Your task to perform on an android device: Open calendar and show me the fourth week of next month Image 0: 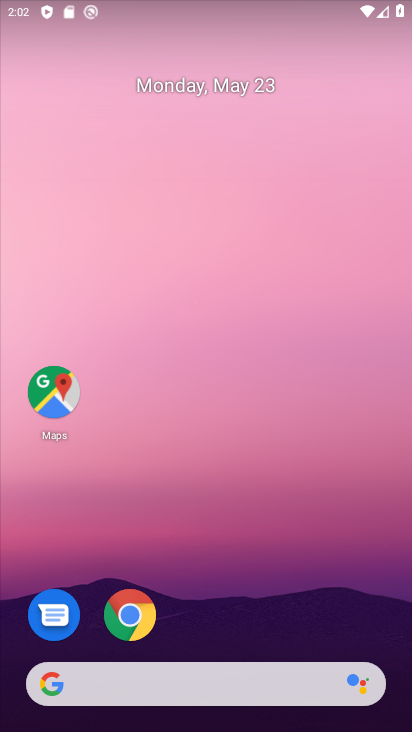
Step 0: drag from (212, 297) to (245, 0)
Your task to perform on an android device: Open calendar and show me the fourth week of next month Image 1: 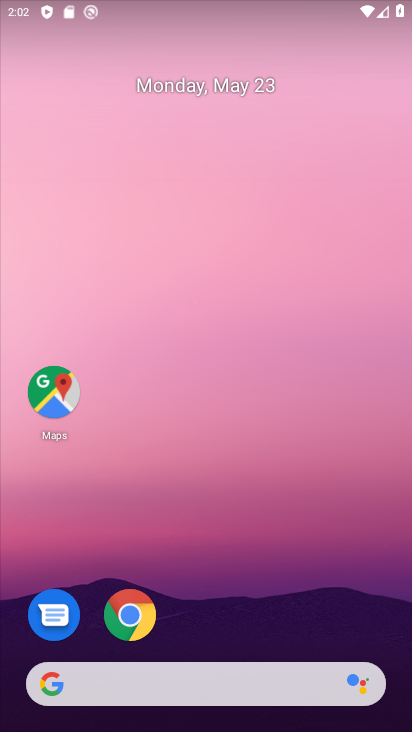
Step 1: drag from (212, 547) to (265, 1)
Your task to perform on an android device: Open calendar and show me the fourth week of next month Image 2: 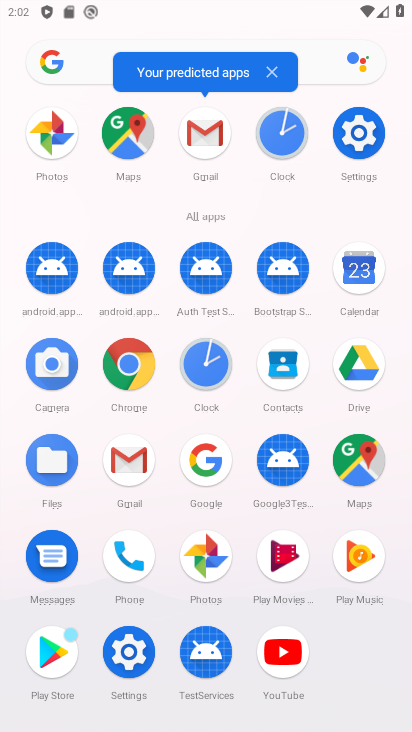
Step 2: click (357, 285)
Your task to perform on an android device: Open calendar and show me the fourth week of next month Image 3: 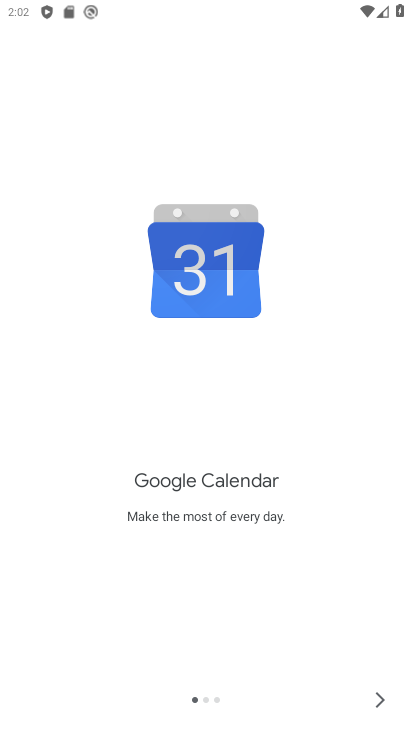
Step 3: click (382, 690)
Your task to perform on an android device: Open calendar and show me the fourth week of next month Image 4: 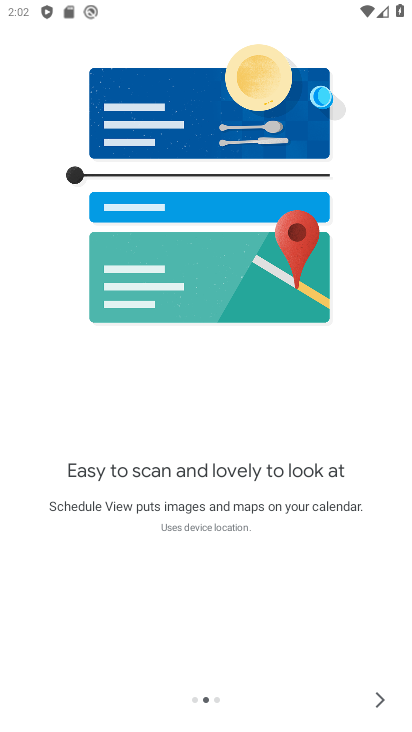
Step 4: click (377, 698)
Your task to perform on an android device: Open calendar and show me the fourth week of next month Image 5: 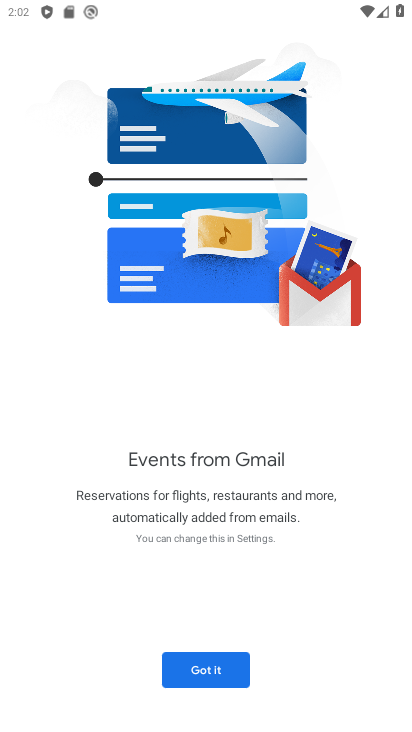
Step 5: click (203, 667)
Your task to perform on an android device: Open calendar and show me the fourth week of next month Image 6: 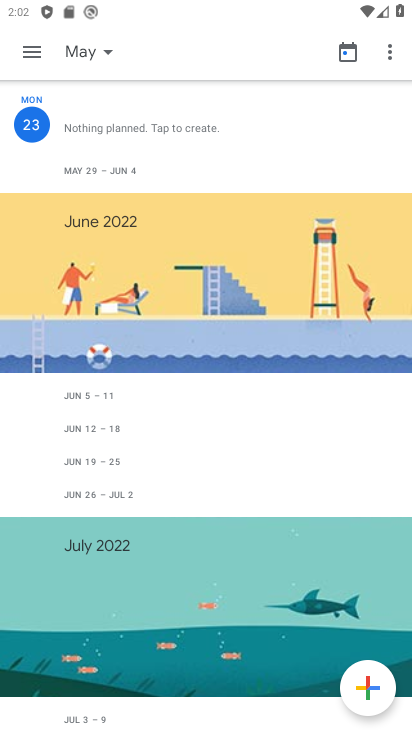
Step 6: click (35, 41)
Your task to perform on an android device: Open calendar and show me the fourth week of next month Image 7: 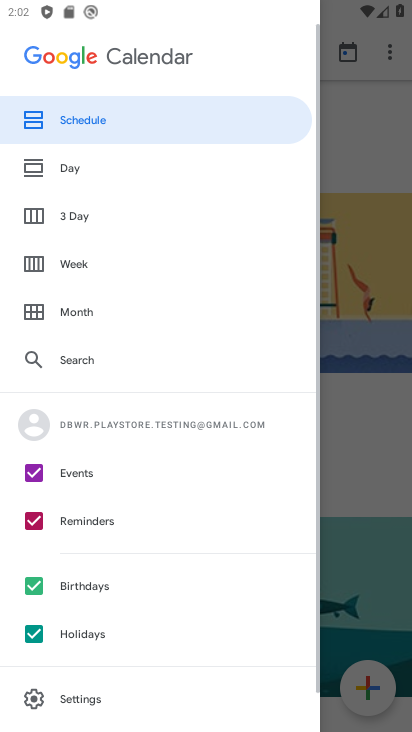
Step 7: click (79, 267)
Your task to perform on an android device: Open calendar and show me the fourth week of next month Image 8: 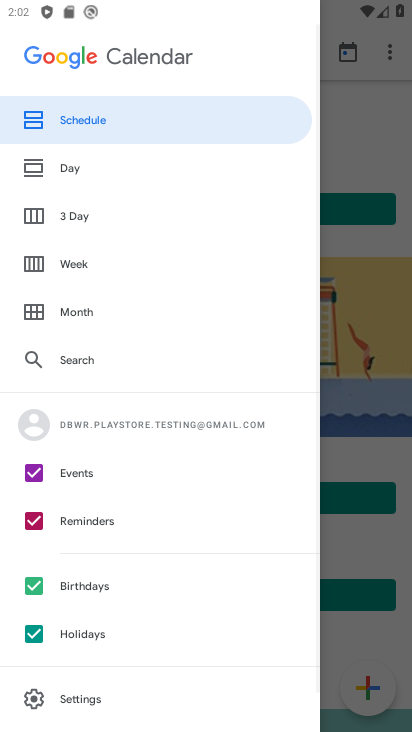
Step 8: click (78, 264)
Your task to perform on an android device: Open calendar and show me the fourth week of next month Image 9: 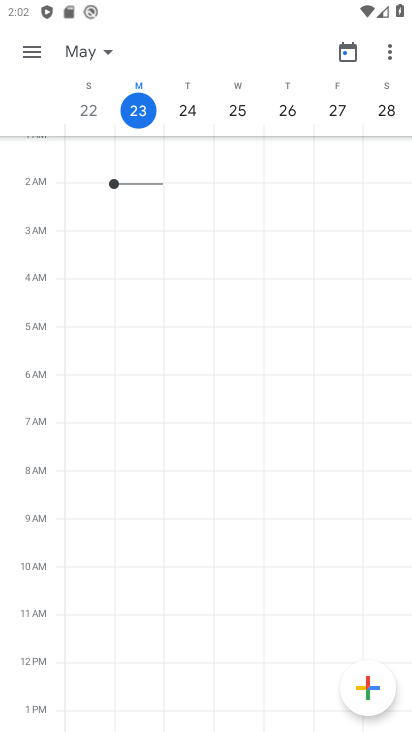
Step 9: click (77, 52)
Your task to perform on an android device: Open calendar and show me the fourth week of next month Image 10: 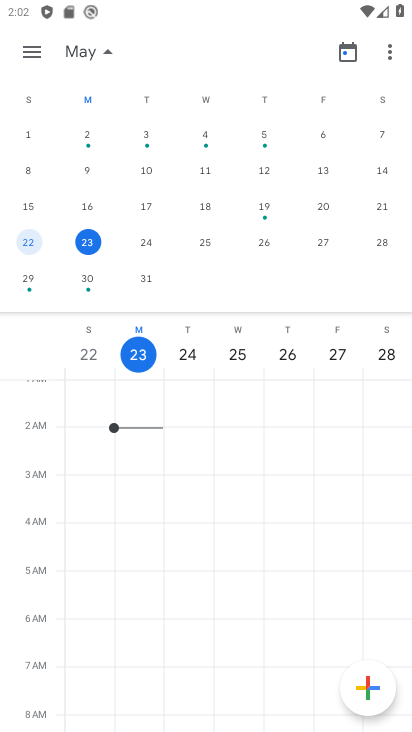
Step 10: drag from (374, 189) to (0, 230)
Your task to perform on an android device: Open calendar and show me the fourth week of next month Image 11: 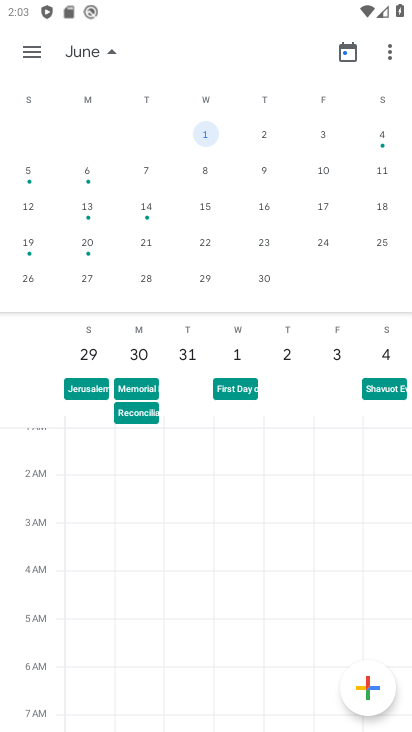
Step 11: click (31, 54)
Your task to perform on an android device: Open calendar and show me the fourth week of next month Image 12: 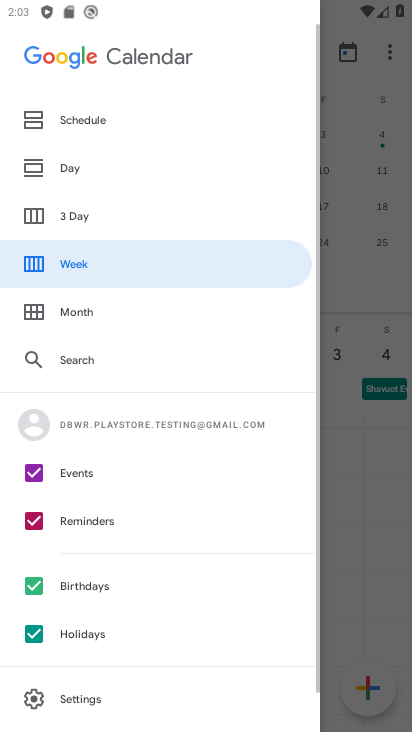
Step 12: click (143, 284)
Your task to perform on an android device: Open calendar and show me the fourth week of next month Image 13: 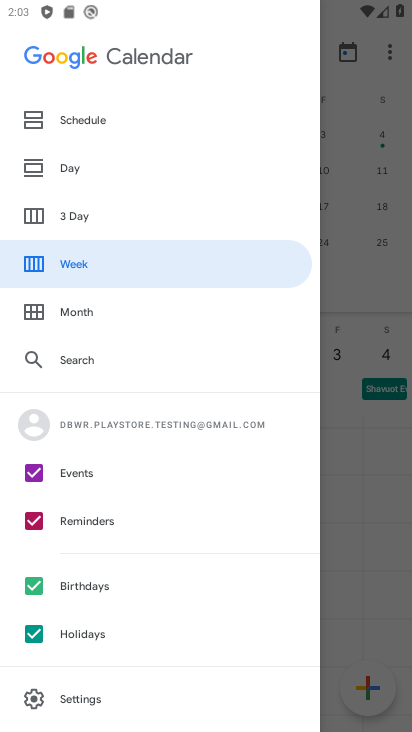
Step 13: click (151, 272)
Your task to perform on an android device: Open calendar and show me the fourth week of next month Image 14: 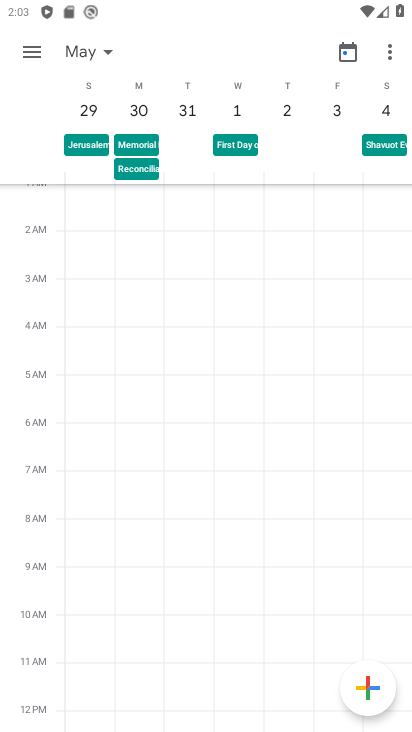
Step 14: task complete